Your task to perform on an android device: open app "Microsoft Outlook" (install if not already installed) and go to login screen Image 0: 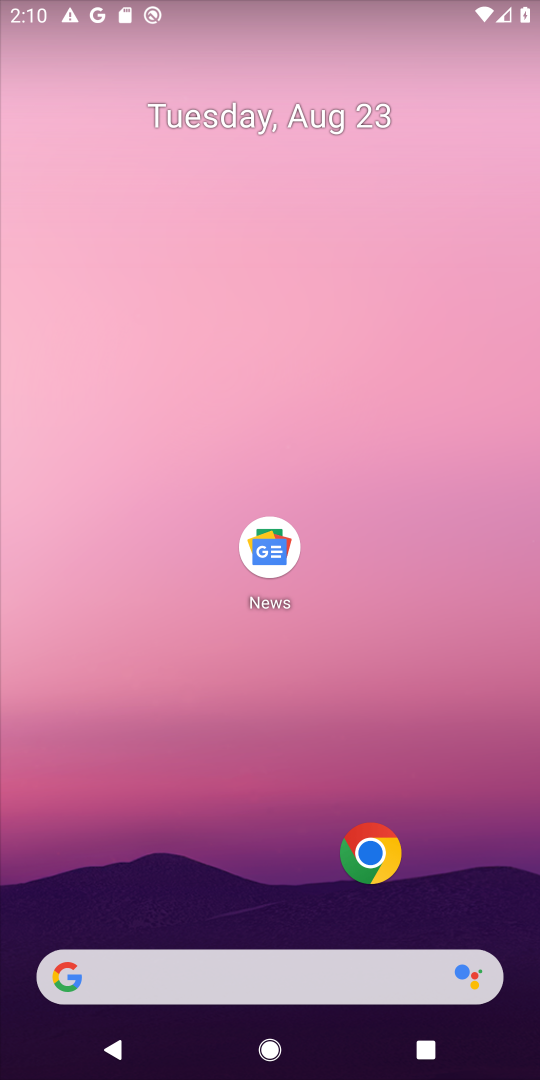
Step 0: drag from (506, 942) to (442, 93)
Your task to perform on an android device: open app "Microsoft Outlook" (install if not already installed) and go to login screen Image 1: 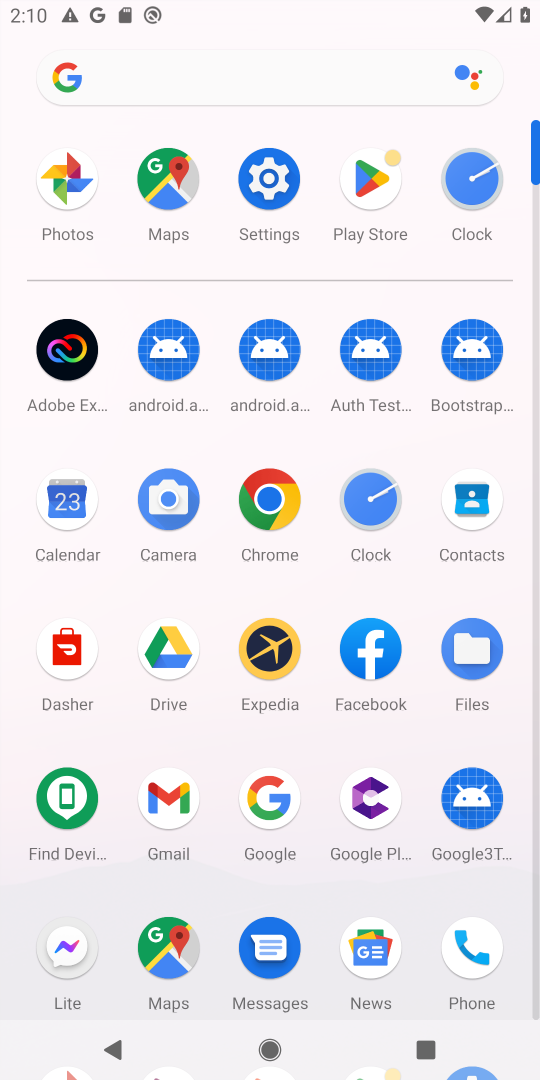
Step 1: click (535, 977)
Your task to perform on an android device: open app "Microsoft Outlook" (install if not already installed) and go to login screen Image 2: 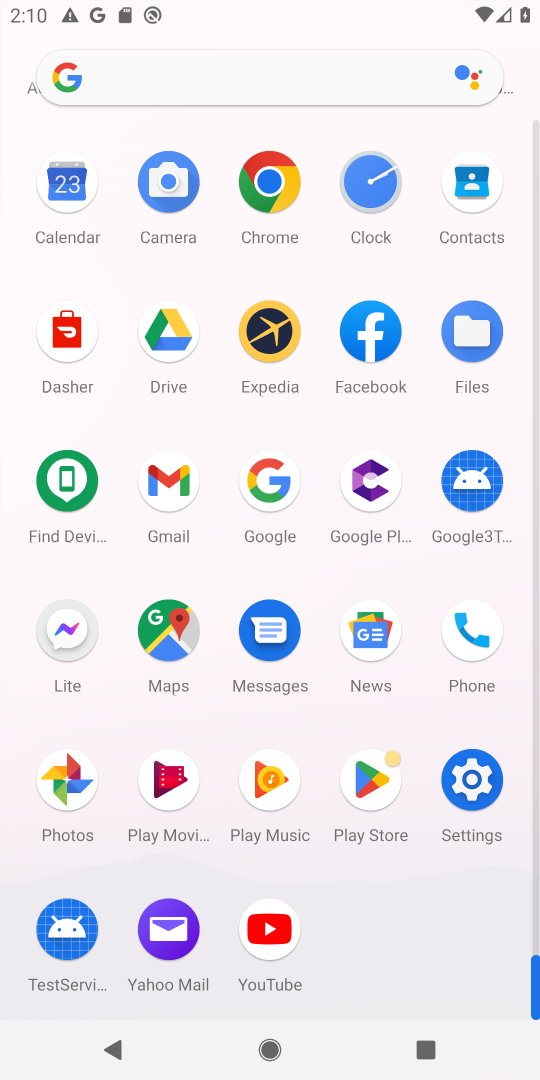
Step 2: click (374, 777)
Your task to perform on an android device: open app "Microsoft Outlook" (install if not already installed) and go to login screen Image 3: 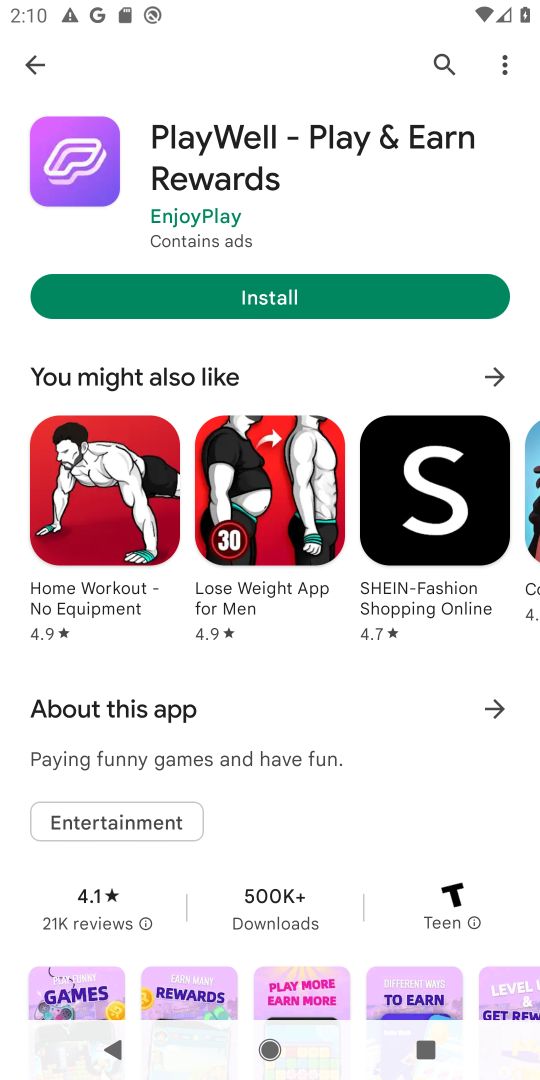
Step 3: click (441, 56)
Your task to perform on an android device: open app "Microsoft Outlook" (install if not already installed) and go to login screen Image 4: 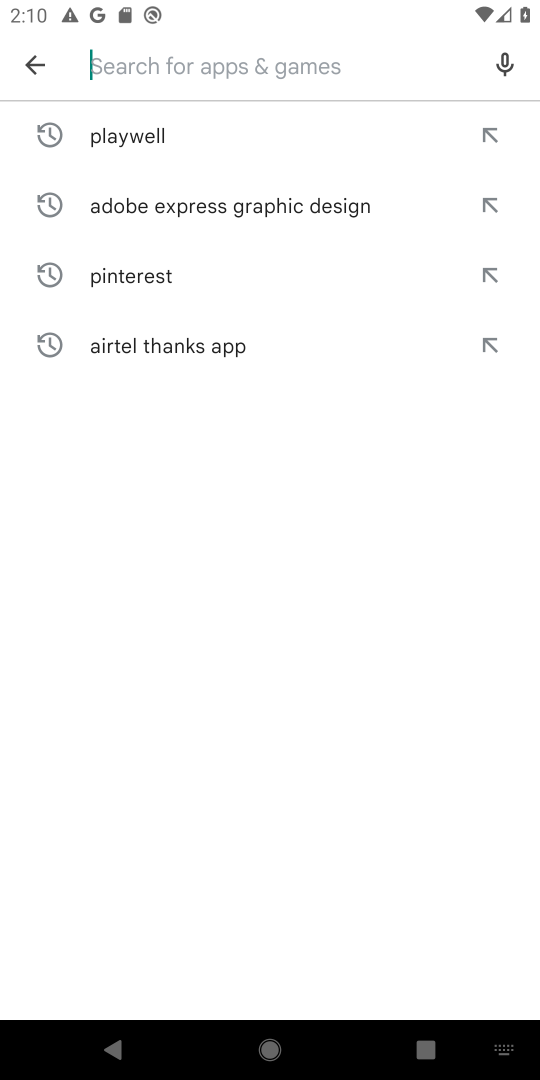
Step 4: type "Microsoft Outlook"
Your task to perform on an android device: open app "Microsoft Outlook" (install if not already installed) and go to login screen Image 5: 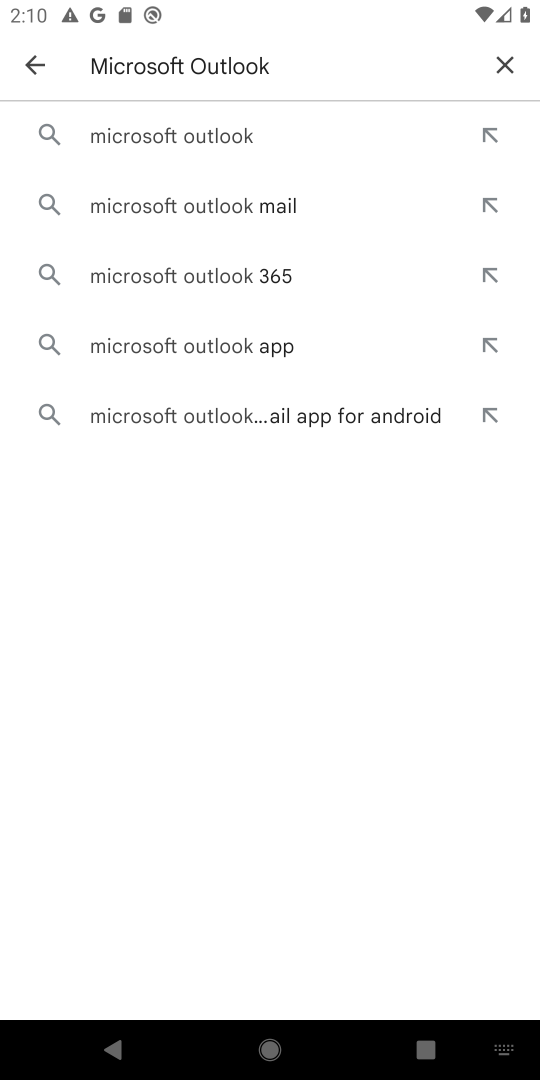
Step 5: click (160, 132)
Your task to perform on an android device: open app "Microsoft Outlook" (install if not already installed) and go to login screen Image 6: 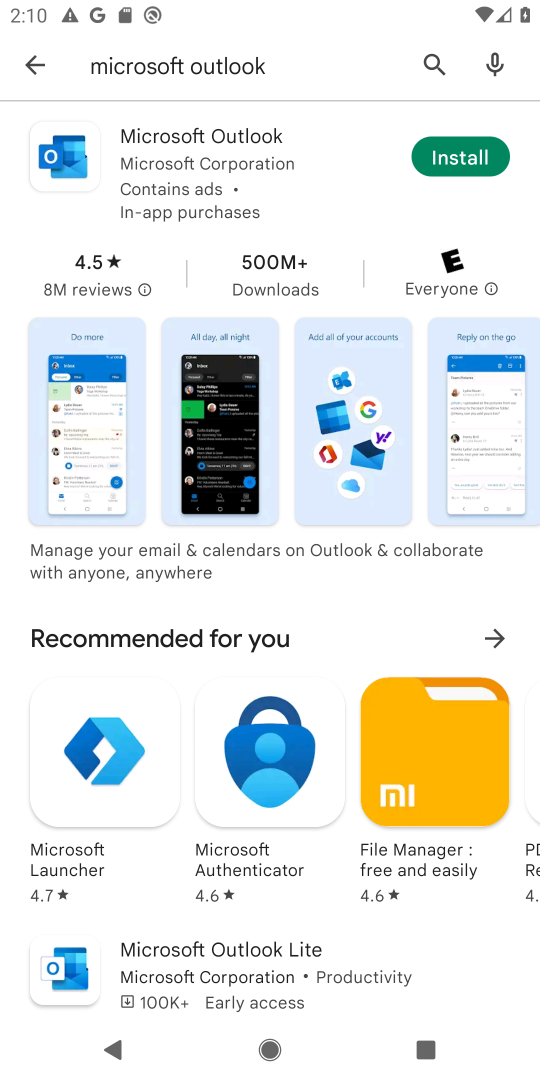
Step 6: click (160, 148)
Your task to perform on an android device: open app "Microsoft Outlook" (install if not already installed) and go to login screen Image 7: 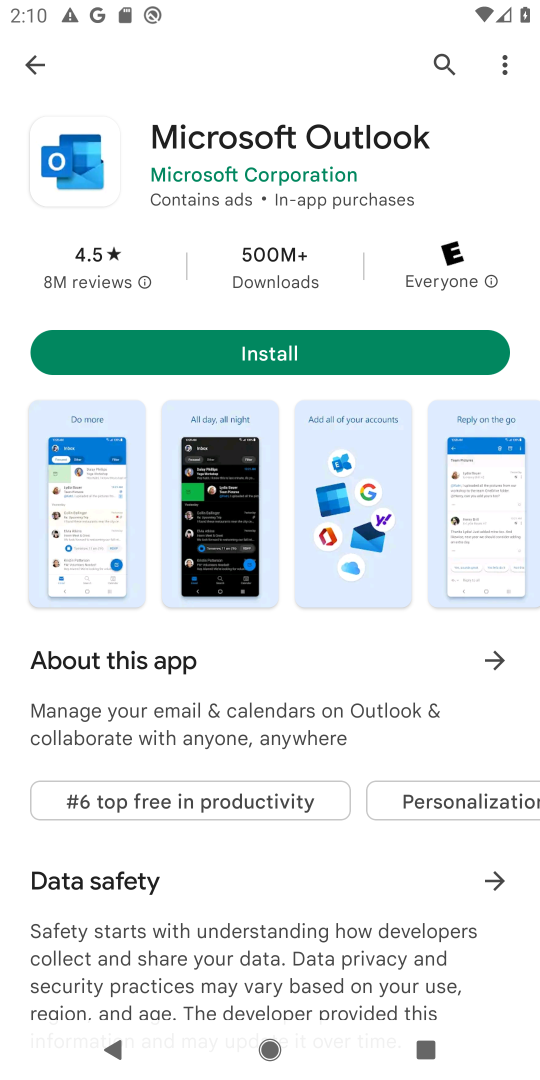
Step 7: click (262, 353)
Your task to perform on an android device: open app "Microsoft Outlook" (install if not already installed) and go to login screen Image 8: 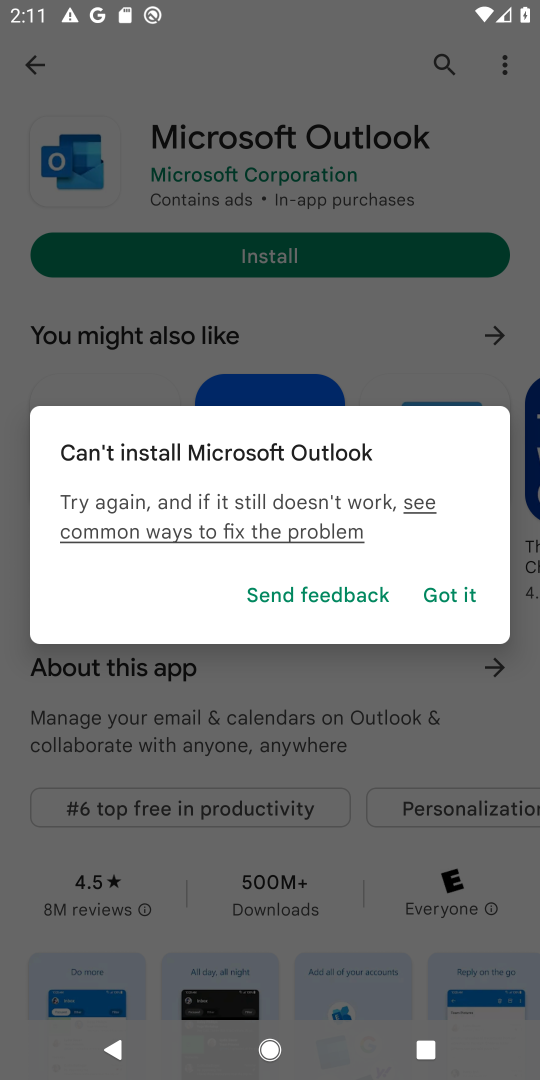
Step 8: click (443, 583)
Your task to perform on an android device: open app "Microsoft Outlook" (install if not already installed) and go to login screen Image 9: 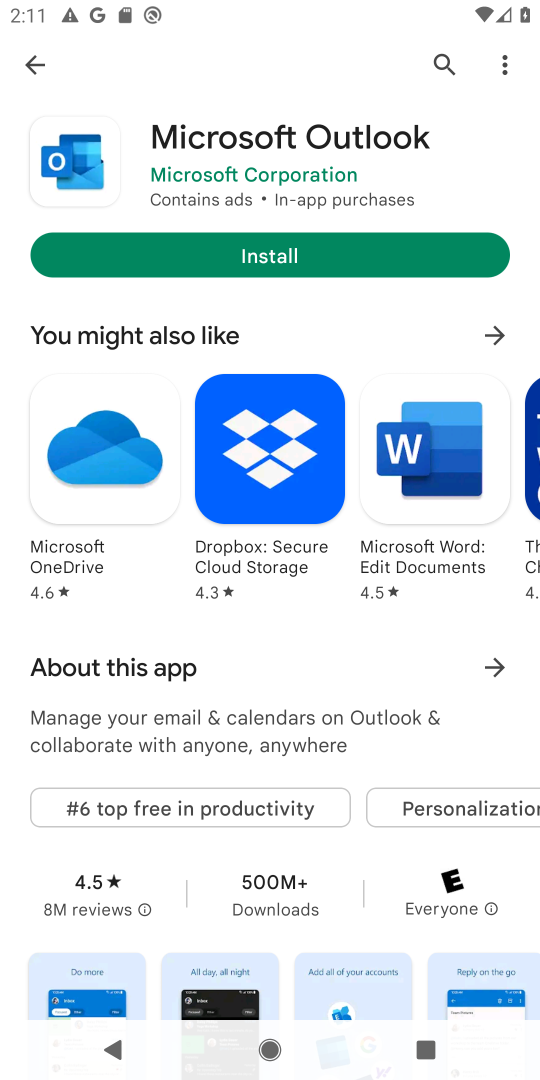
Step 9: click (274, 255)
Your task to perform on an android device: open app "Microsoft Outlook" (install if not already installed) and go to login screen Image 10: 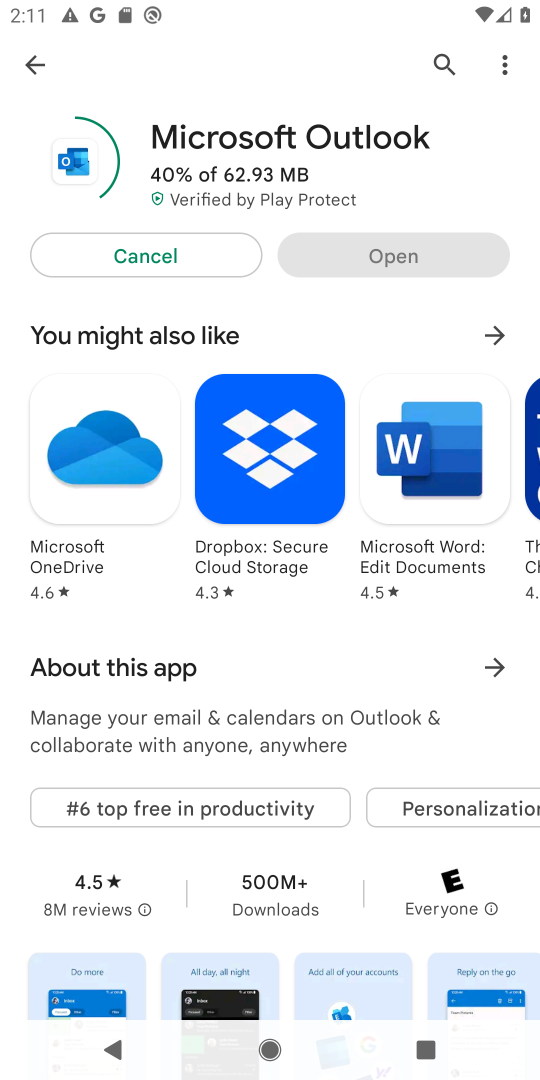
Step 10: task complete